Your task to perform on an android device: Go to privacy settings Image 0: 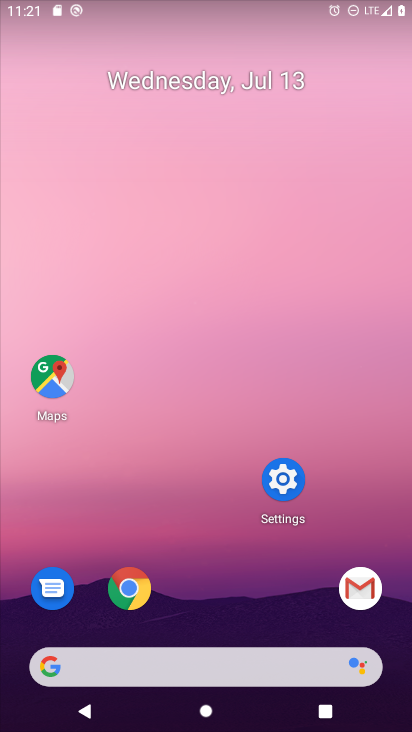
Step 0: press home button
Your task to perform on an android device: Go to privacy settings Image 1: 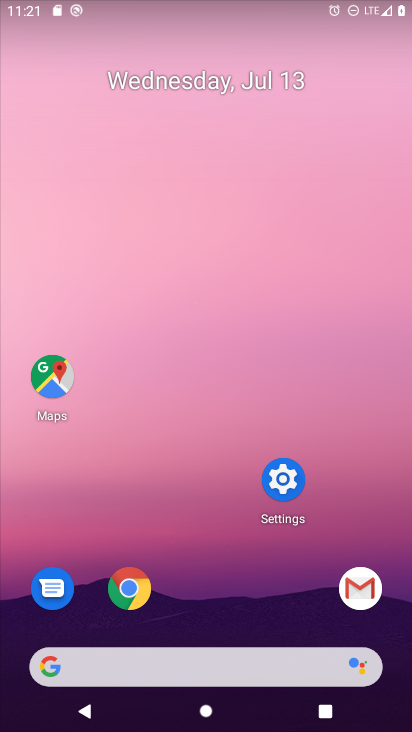
Step 1: click (278, 477)
Your task to perform on an android device: Go to privacy settings Image 2: 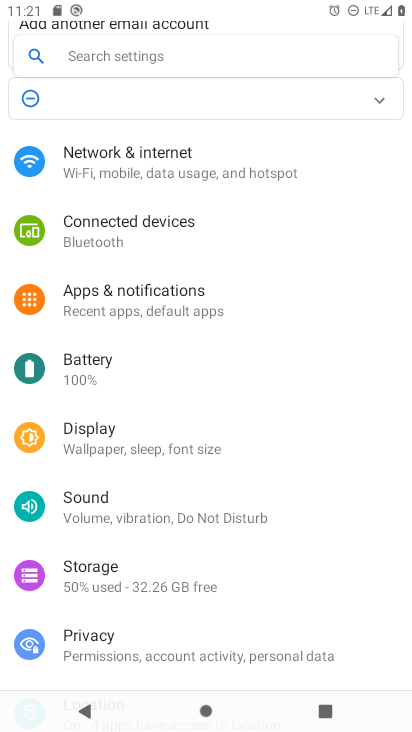
Step 2: click (151, 50)
Your task to perform on an android device: Go to privacy settings Image 3: 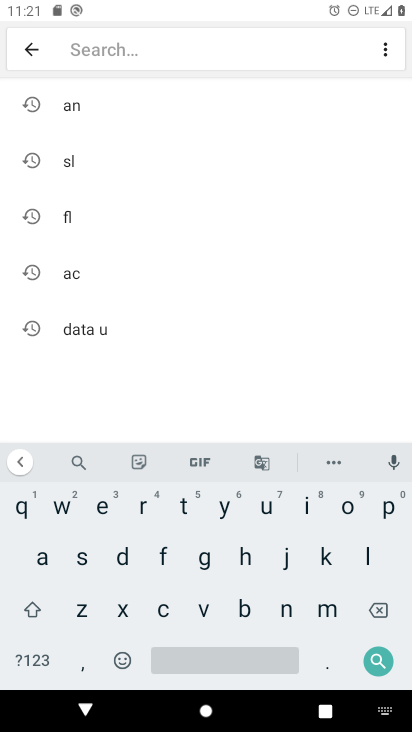
Step 3: click (386, 513)
Your task to perform on an android device: Go to privacy settings Image 4: 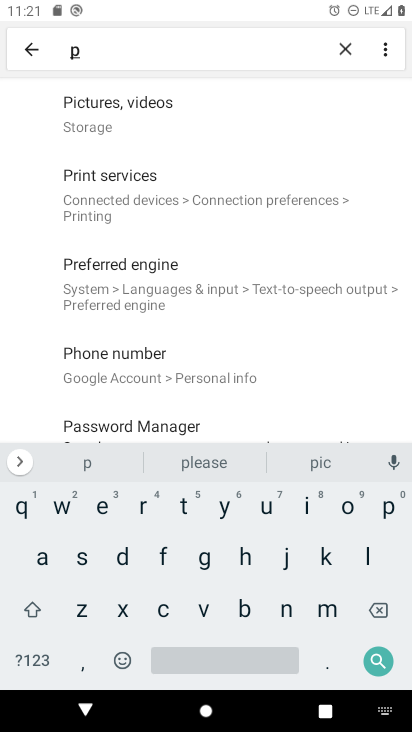
Step 4: click (139, 506)
Your task to perform on an android device: Go to privacy settings Image 5: 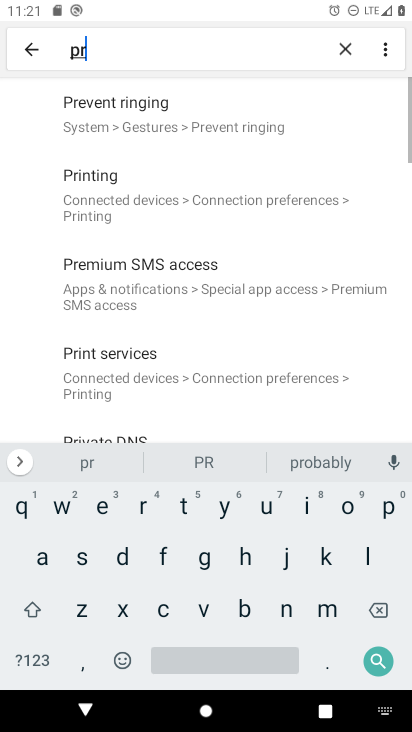
Step 5: click (304, 503)
Your task to perform on an android device: Go to privacy settings Image 6: 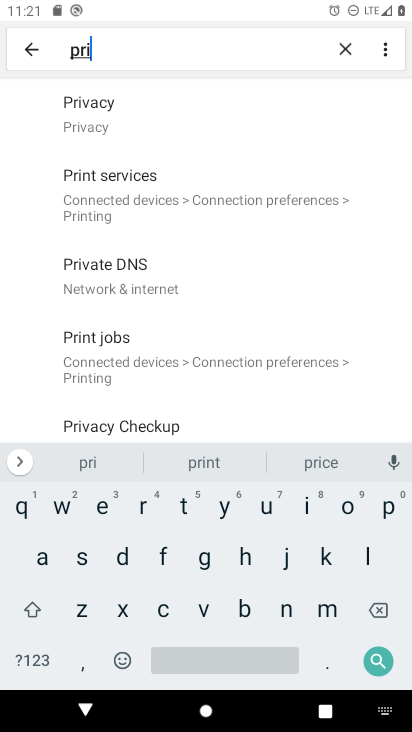
Step 6: click (83, 111)
Your task to perform on an android device: Go to privacy settings Image 7: 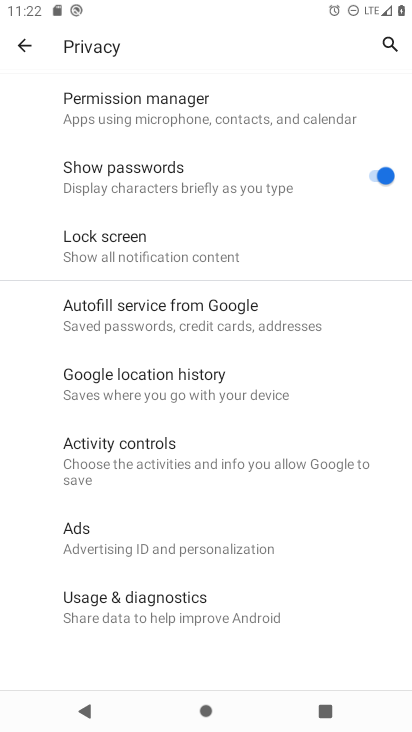
Step 7: task complete